Your task to perform on an android device: Open display settings Image 0: 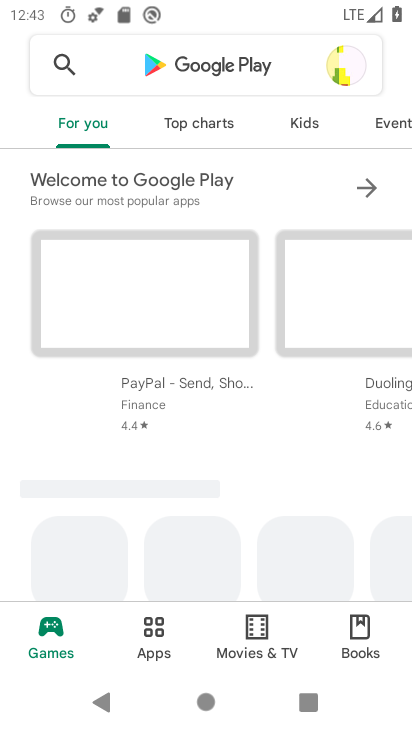
Step 0: press home button
Your task to perform on an android device: Open display settings Image 1: 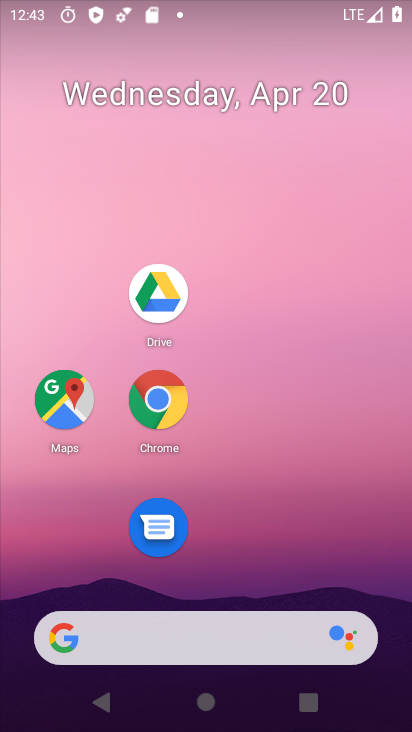
Step 1: drag from (270, 647) to (207, 201)
Your task to perform on an android device: Open display settings Image 2: 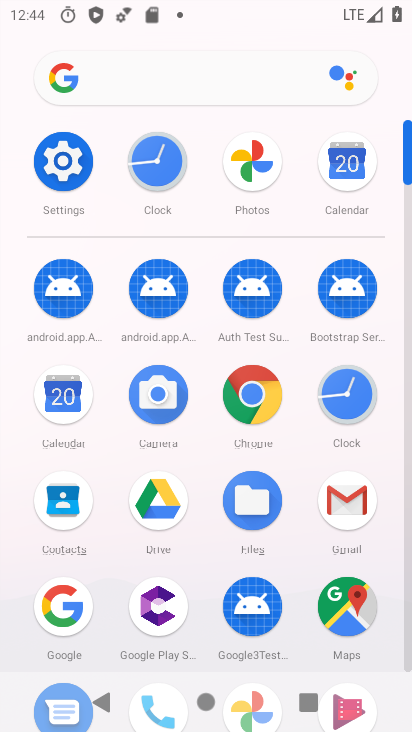
Step 2: click (76, 165)
Your task to perform on an android device: Open display settings Image 3: 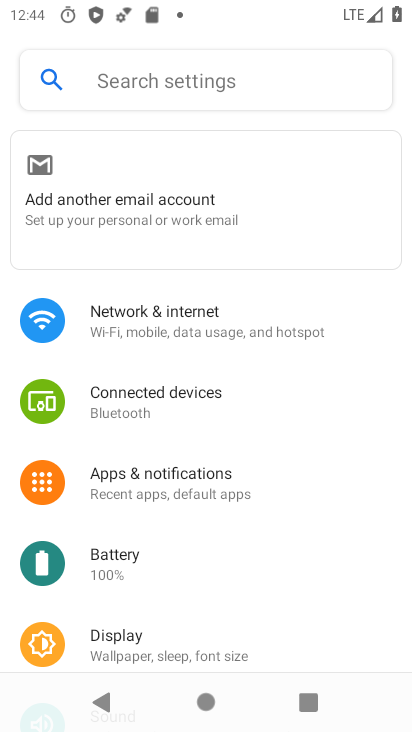
Step 3: click (144, 642)
Your task to perform on an android device: Open display settings Image 4: 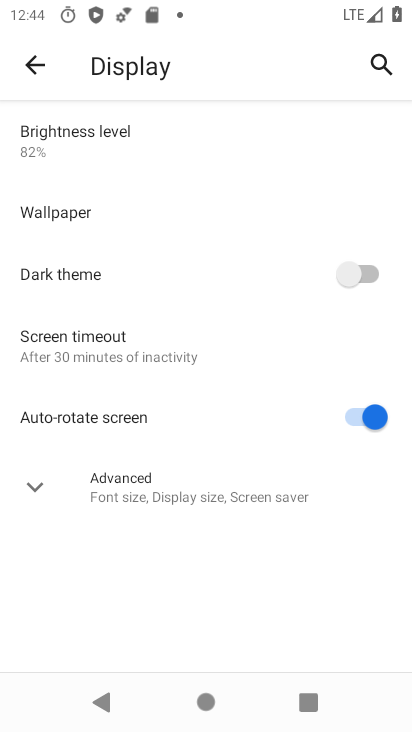
Step 4: click (49, 490)
Your task to perform on an android device: Open display settings Image 5: 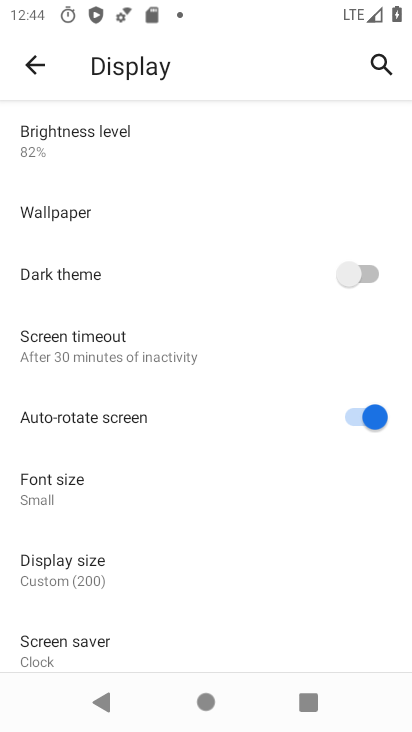
Step 5: task complete